Your task to perform on an android device: refresh tabs in the chrome app Image 0: 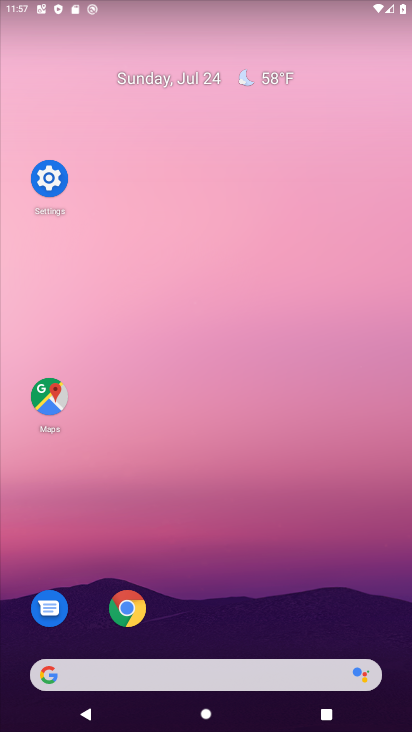
Step 0: click (136, 601)
Your task to perform on an android device: refresh tabs in the chrome app Image 1: 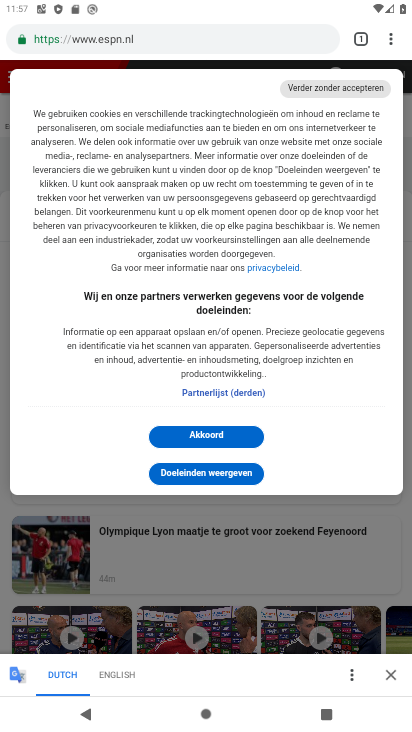
Step 1: click (393, 33)
Your task to perform on an android device: refresh tabs in the chrome app Image 2: 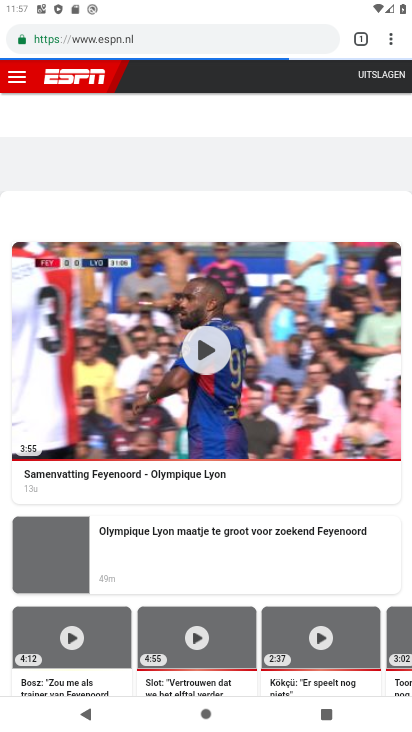
Step 2: click (391, 39)
Your task to perform on an android device: refresh tabs in the chrome app Image 3: 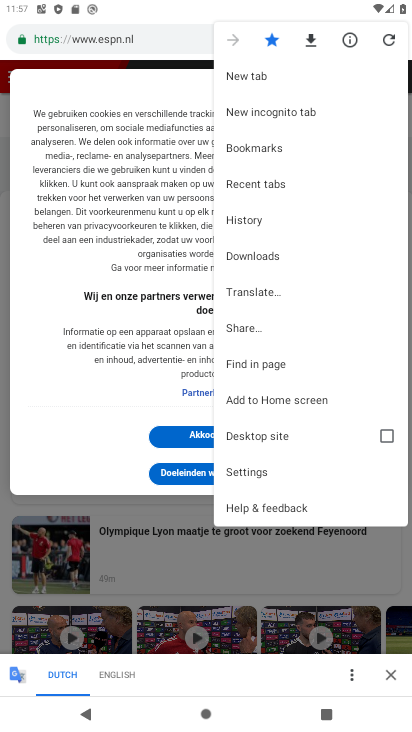
Step 3: click (384, 44)
Your task to perform on an android device: refresh tabs in the chrome app Image 4: 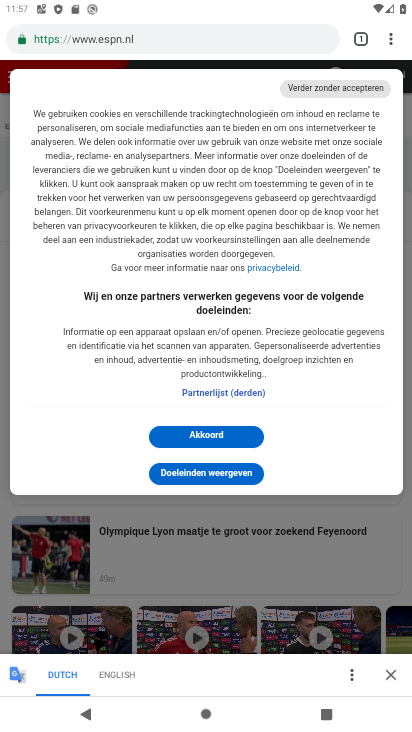
Step 4: task complete